Your task to perform on an android device: Open network settings Image 0: 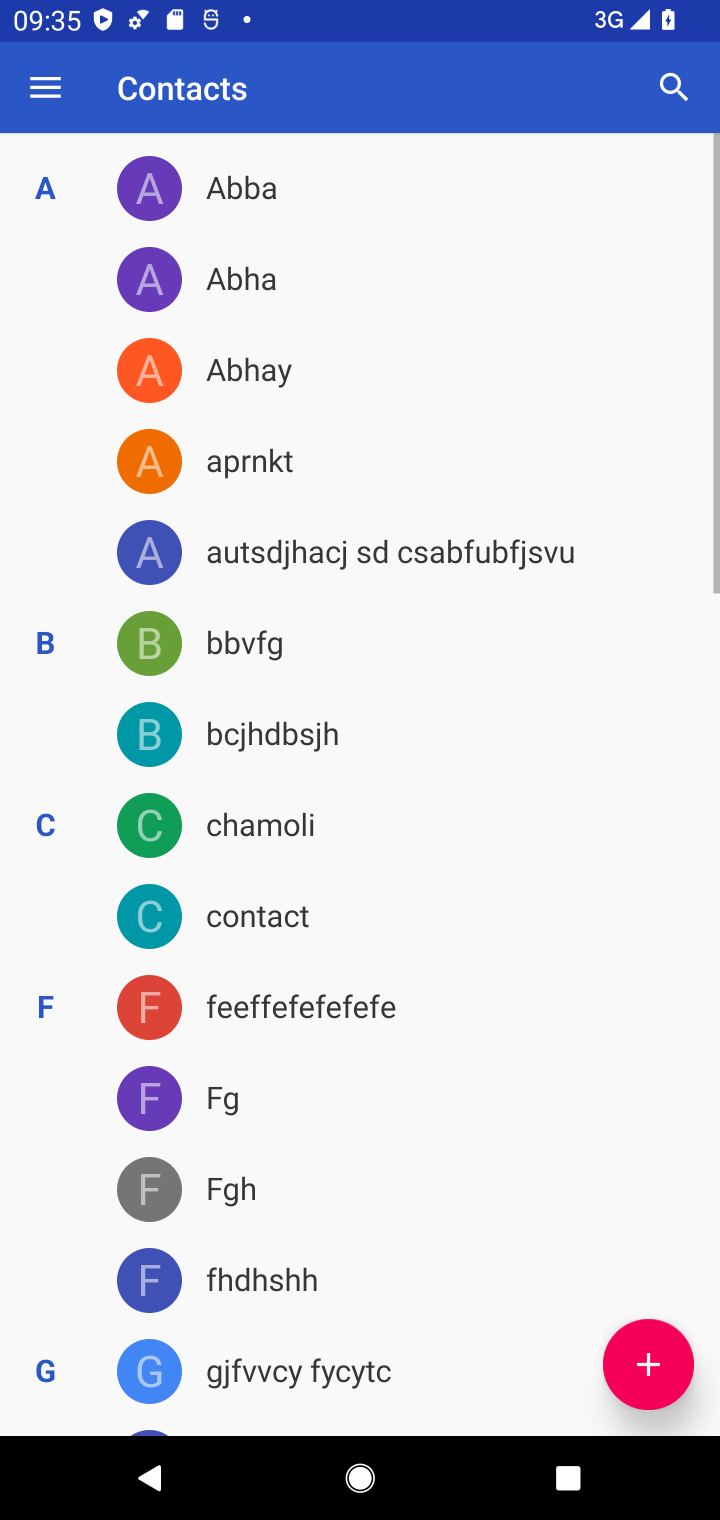
Step 0: press home button
Your task to perform on an android device: Open network settings Image 1: 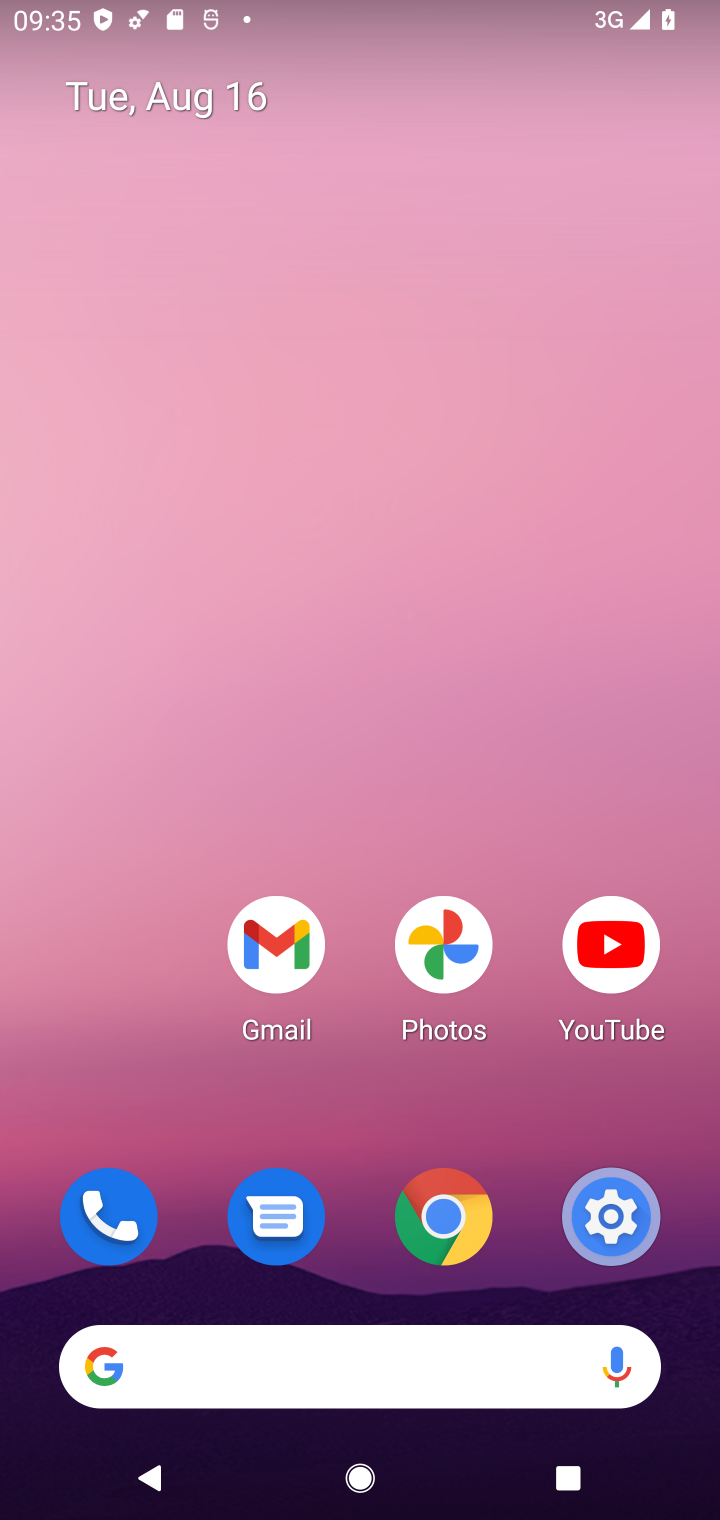
Step 1: drag from (383, 1232) to (458, 267)
Your task to perform on an android device: Open network settings Image 2: 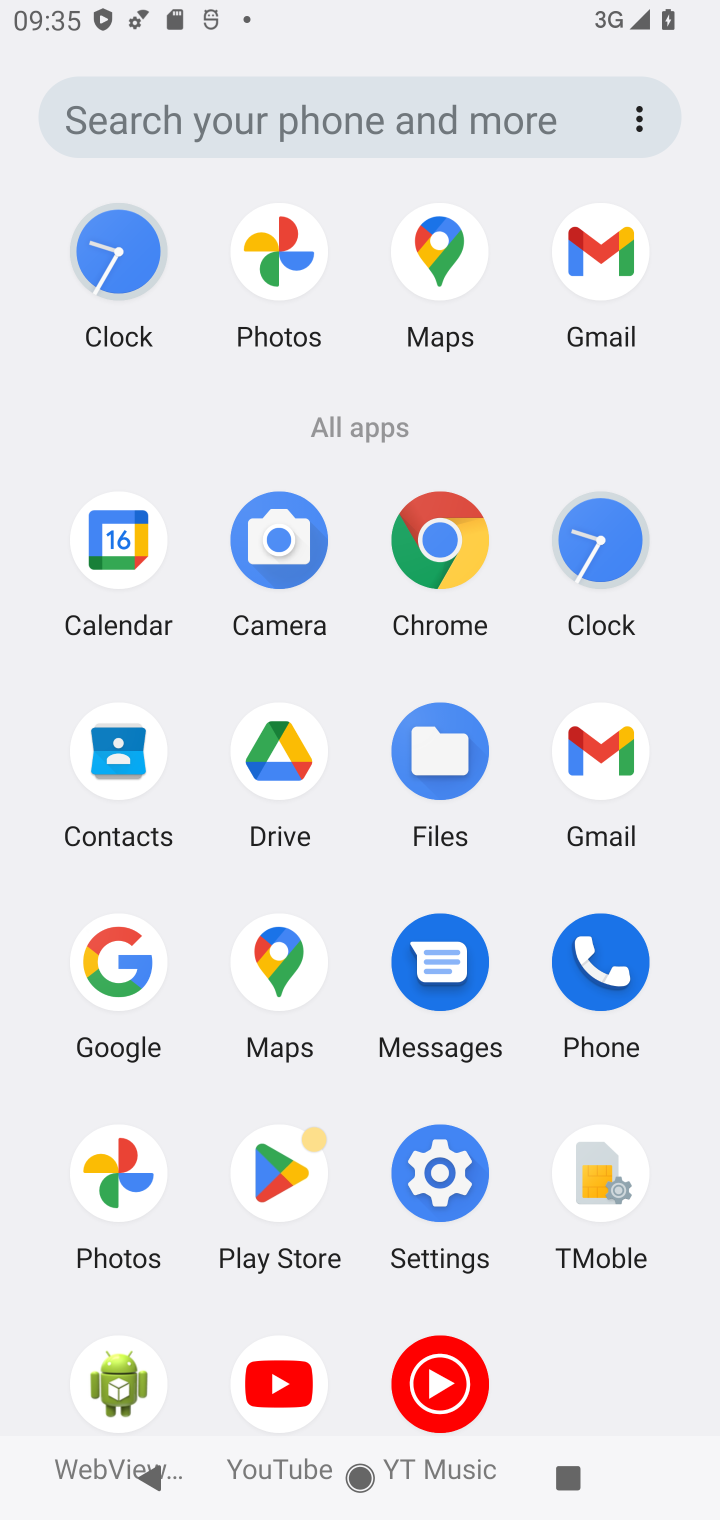
Step 2: click (442, 1183)
Your task to perform on an android device: Open network settings Image 3: 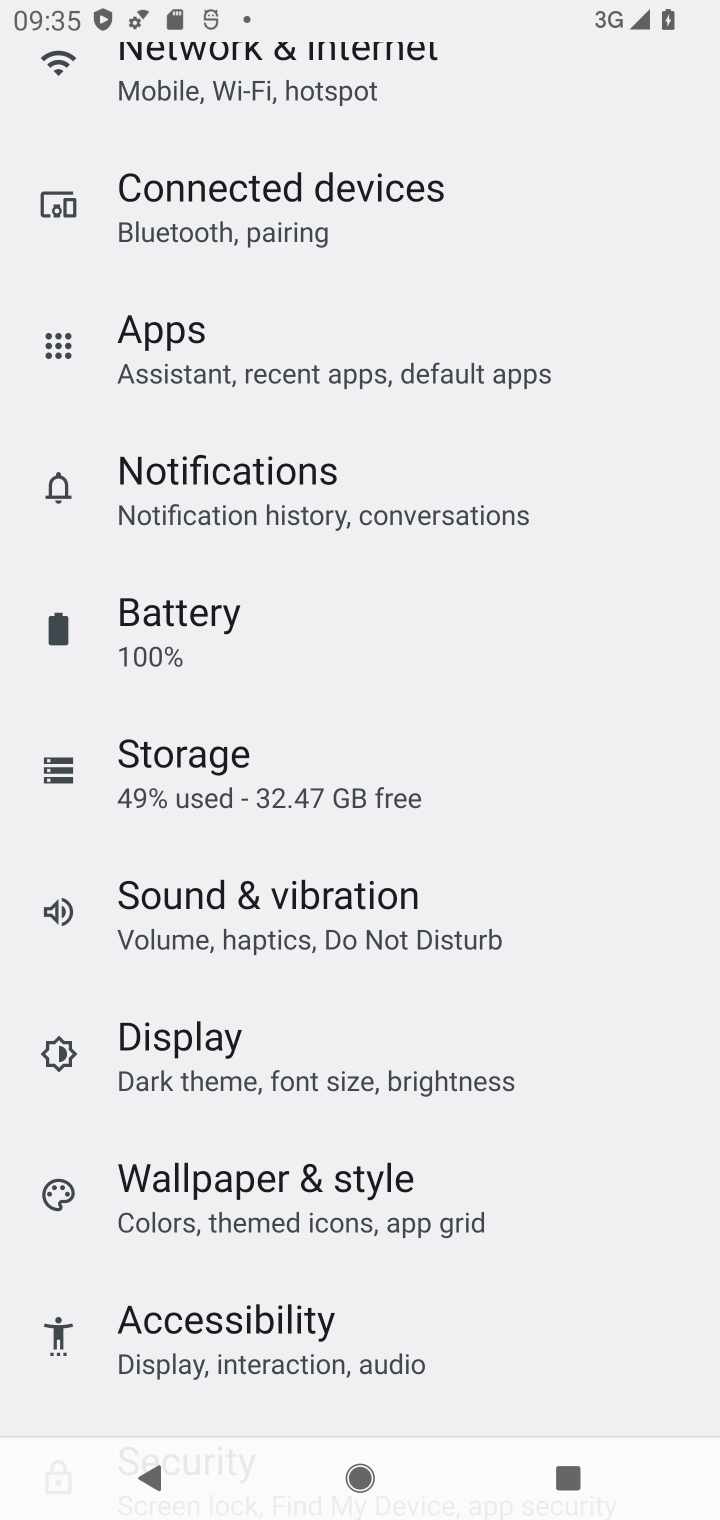
Step 3: drag from (284, 267) to (321, 1047)
Your task to perform on an android device: Open network settings Image 4: 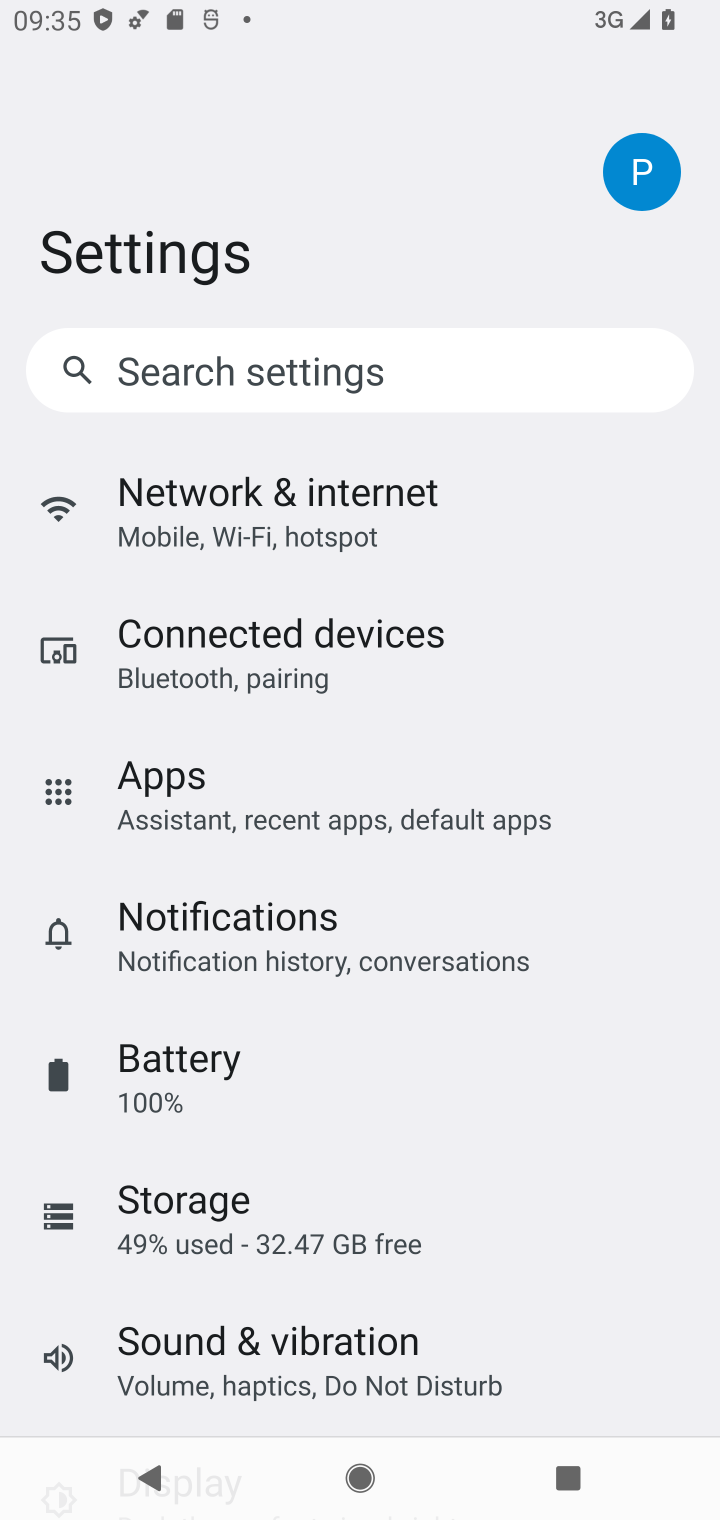
Step 4: click (257, 509)
Your task to perform on an android device: Open network settings Image 5: 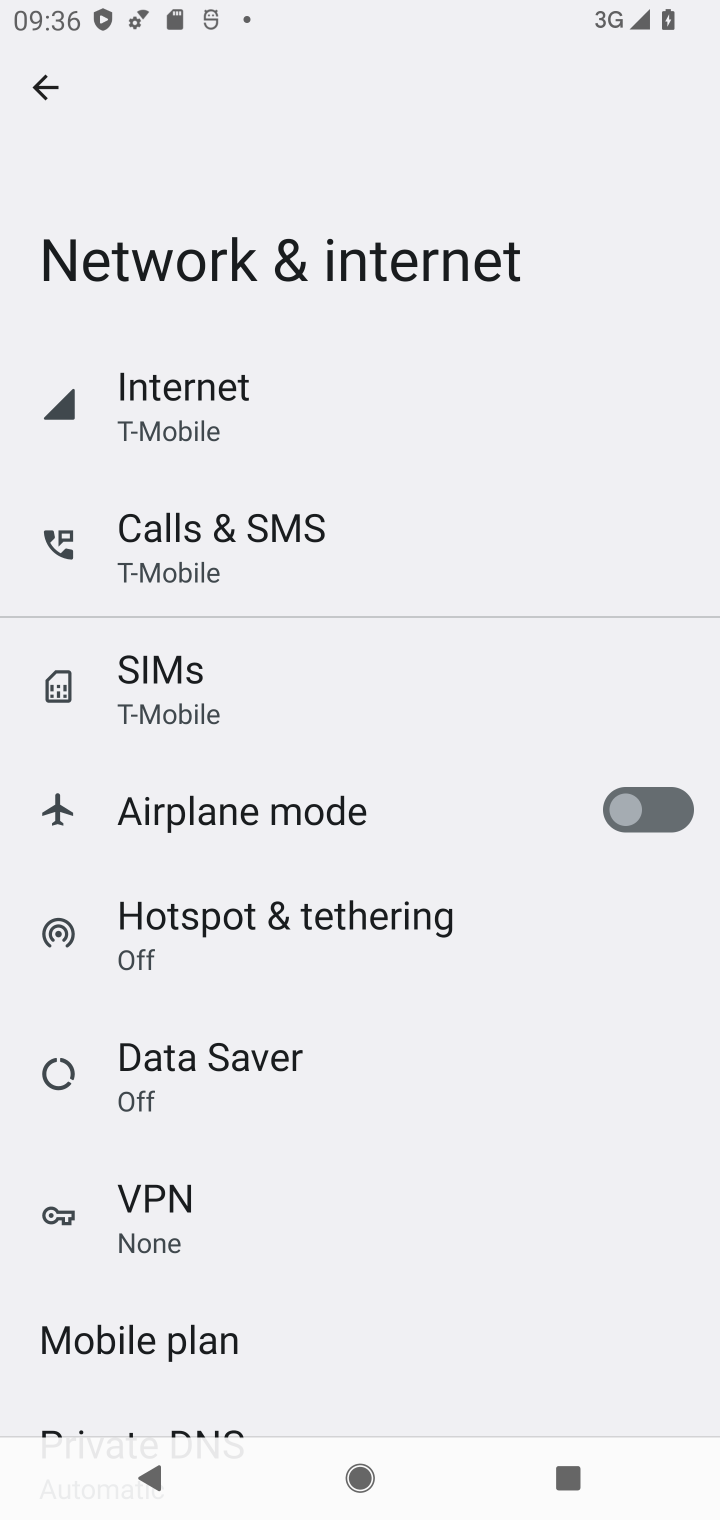
Step 5: task complete